Your task to perform on an android device: open a bookmark in the chrome app Image 0: 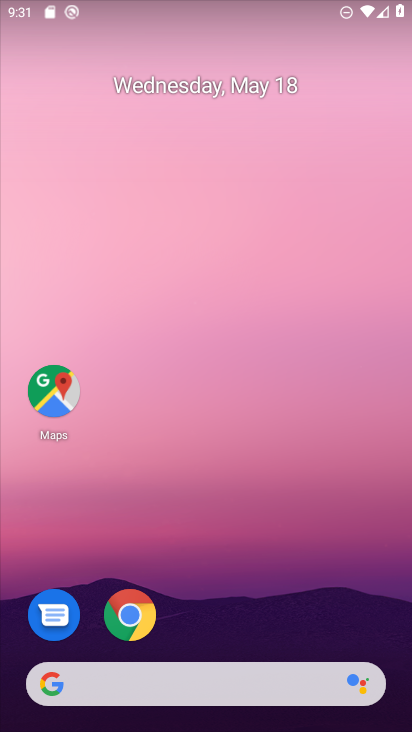
Step 0: click (133, 612)
Your task to perform on an android device: open a bookmark in the chrome app Image 1: 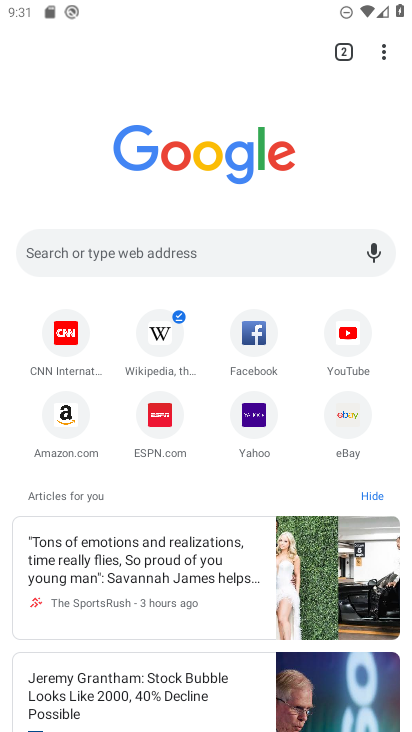
Step 1: click (379, 55)
Your task to perform on an android device: open a bookmark in the chrome app Image 2: 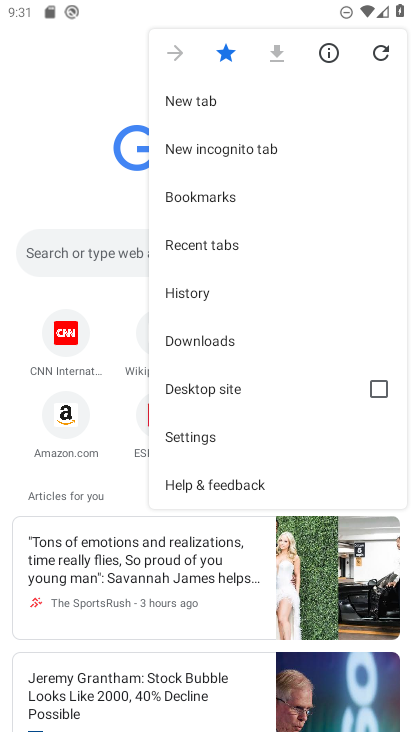
Step 2: click (217, 194)
Your task to perform on an android device: open a bookmark in the chrome app Image 3: 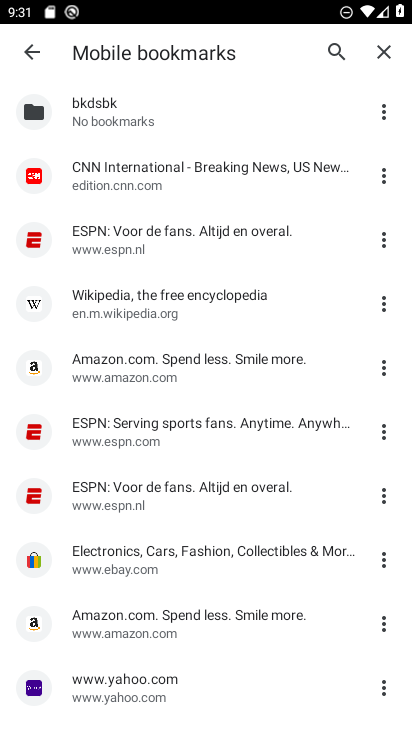
Step 3: click (143, 298)
Your task to perform on an android device: open a bookmark in the chrome app Image 4: 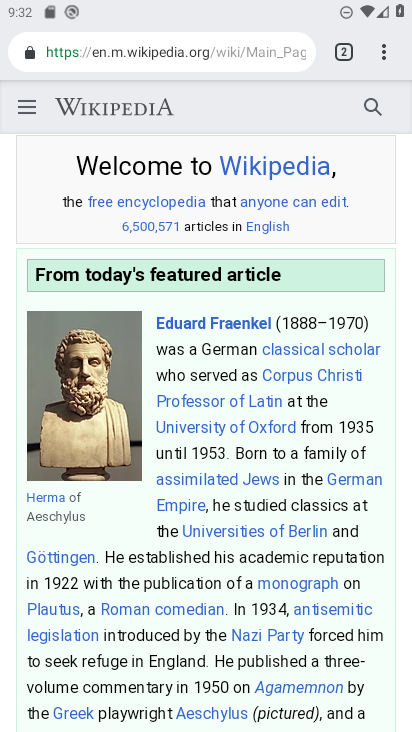
Step 4: task complete